Your task to perform on an android device: add a label to a message in the gmail app Image 0: 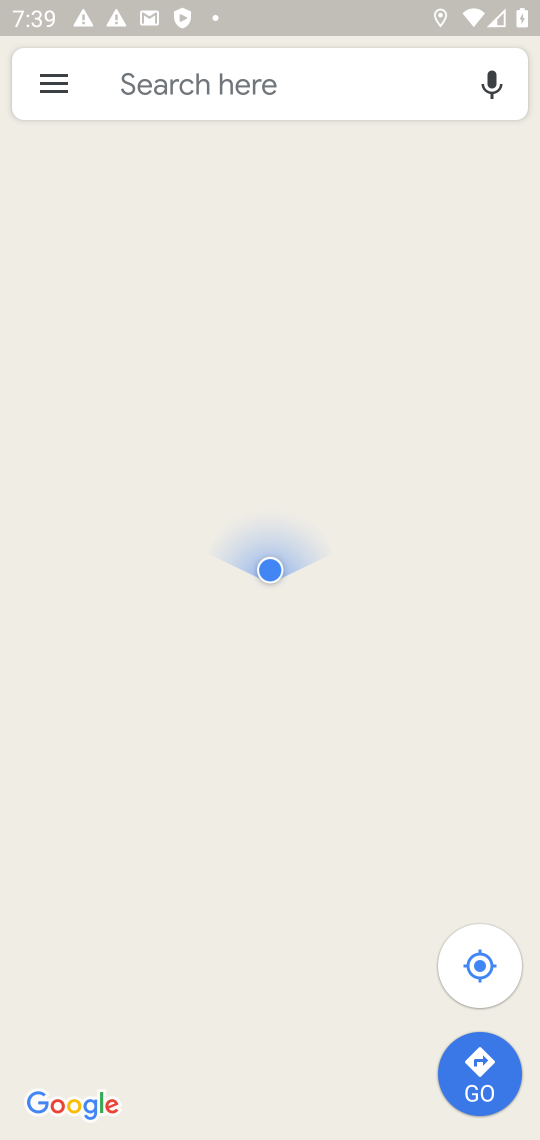
Step 0: press home button
Your task to perform on an android device: add a label to a message in the gmail app Image 1: 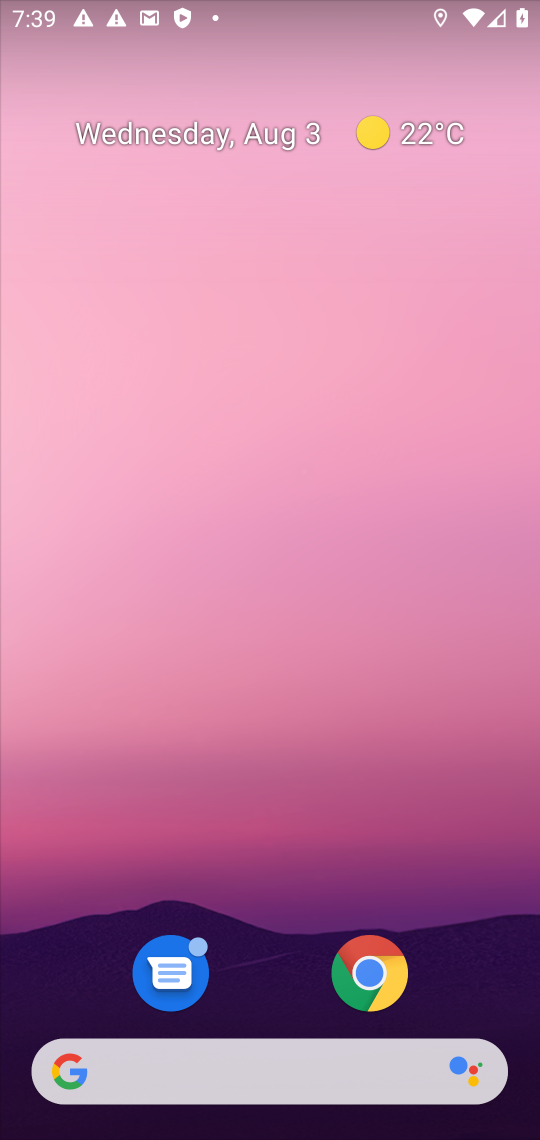
Step 1: drag from (270, 981) to (396, 127)
Your task to perform on an android device: add a label to a message in the gmail app Image 2: 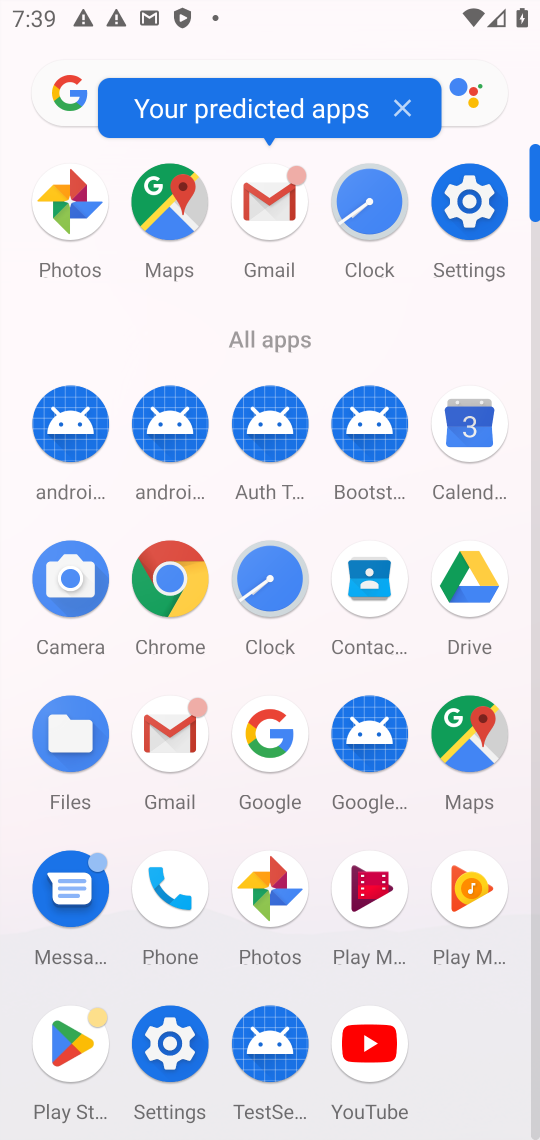
Step 2: click (264, 194)
Your task to perform on an android device: add a label to a message in the gmail app Image 3: 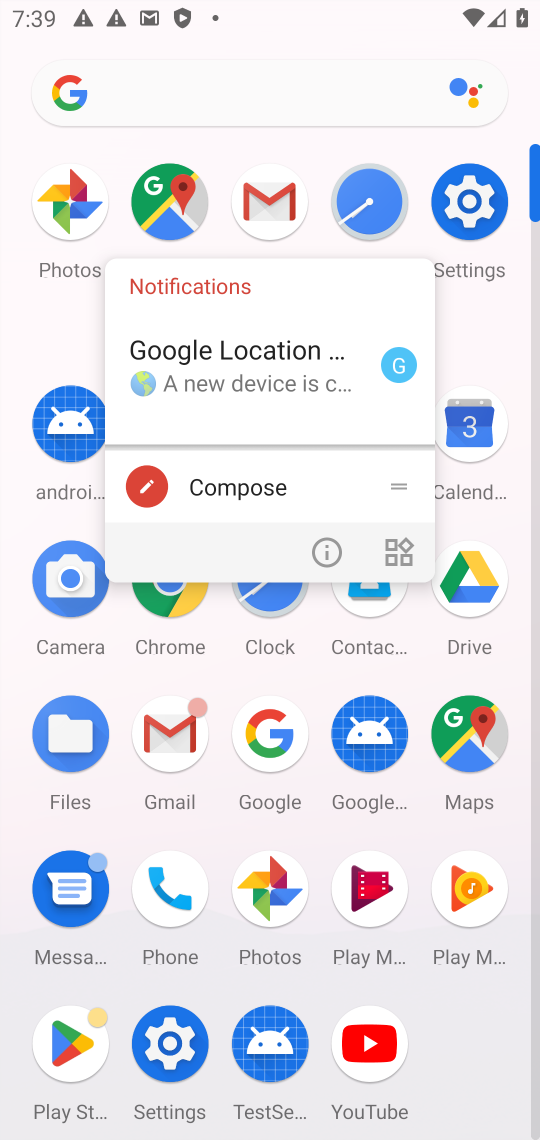
Step 3: click (274, 192)
Your task to perform on an android device: add a label to a message in the gmail app Image 4: 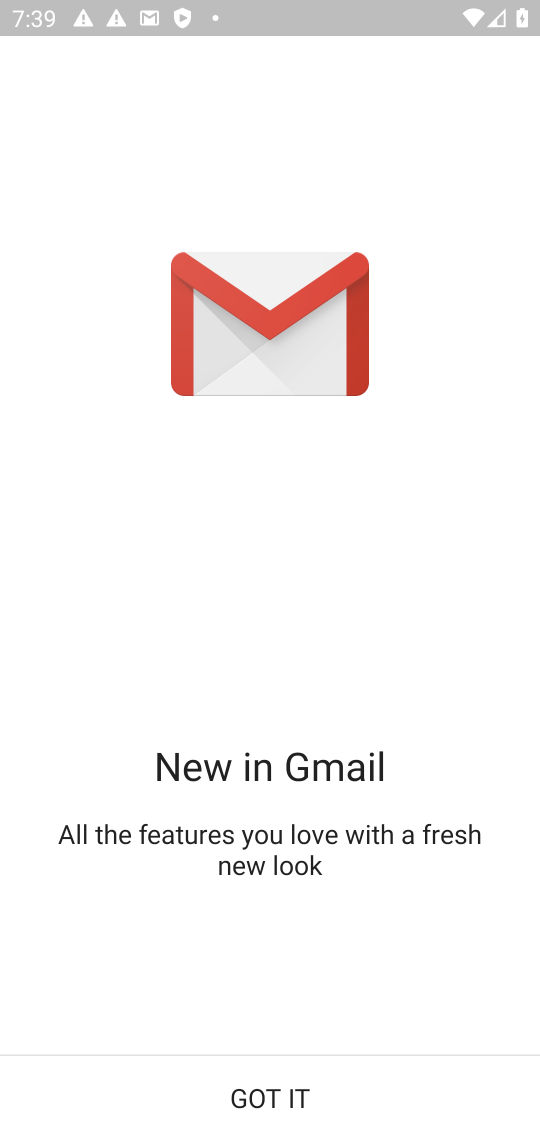
Step 4: click (274, 1104)
Your task to perform on an android device: add a label to a message in the gmail app Image 5: 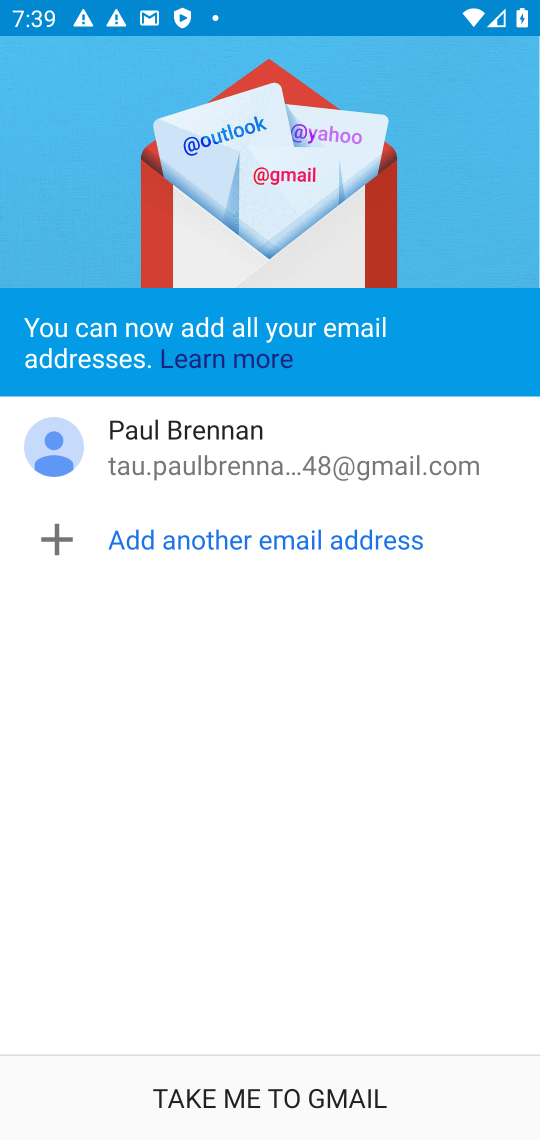
Step 5: click (270, 1099)
Your task to perform on an android device: add a label to a message in the gmail app Image 6: 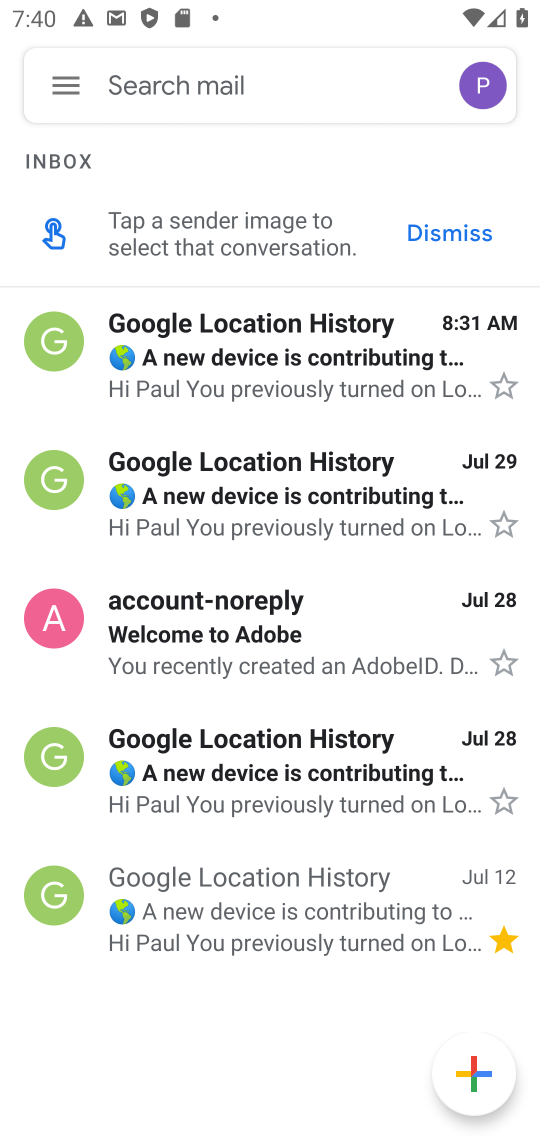
Step 6: click (57, 330)
Your task to perform on an android device: add a label to a message in the gmail app Image 7: 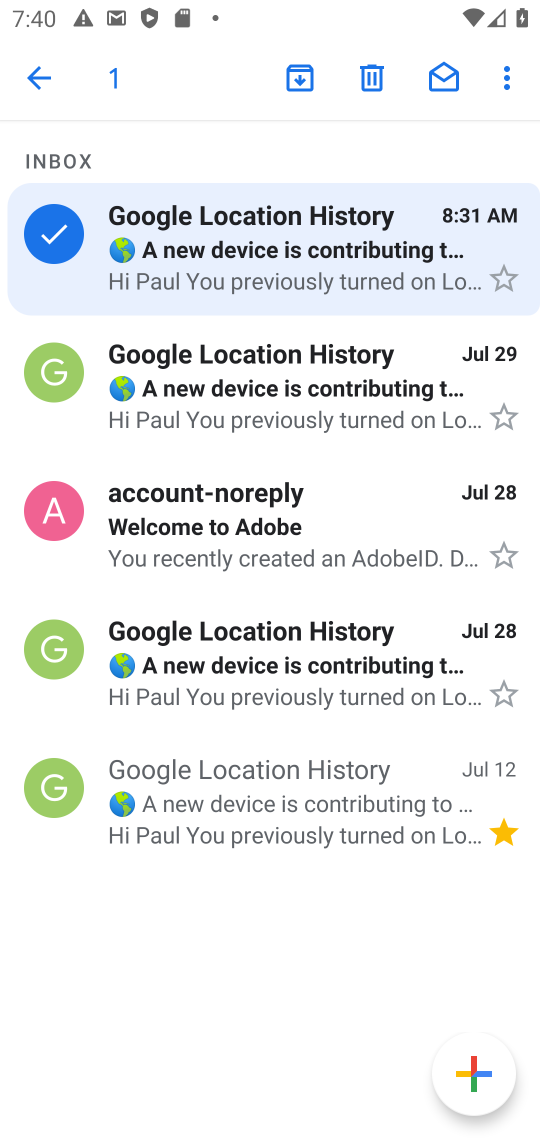
Step 7: click (502, 82)
Your task to perform on an android device: add a label to a message in the gmail app Image 8: 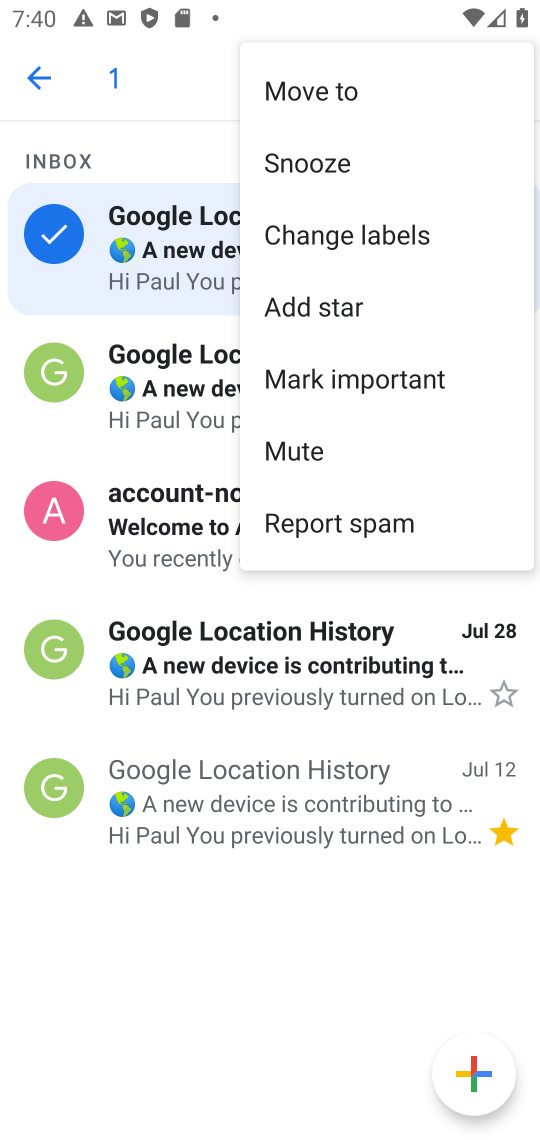
Step 8: click (386, 225)
Your task to perform on an android device: add a label to a message in the gmail app Image 9: 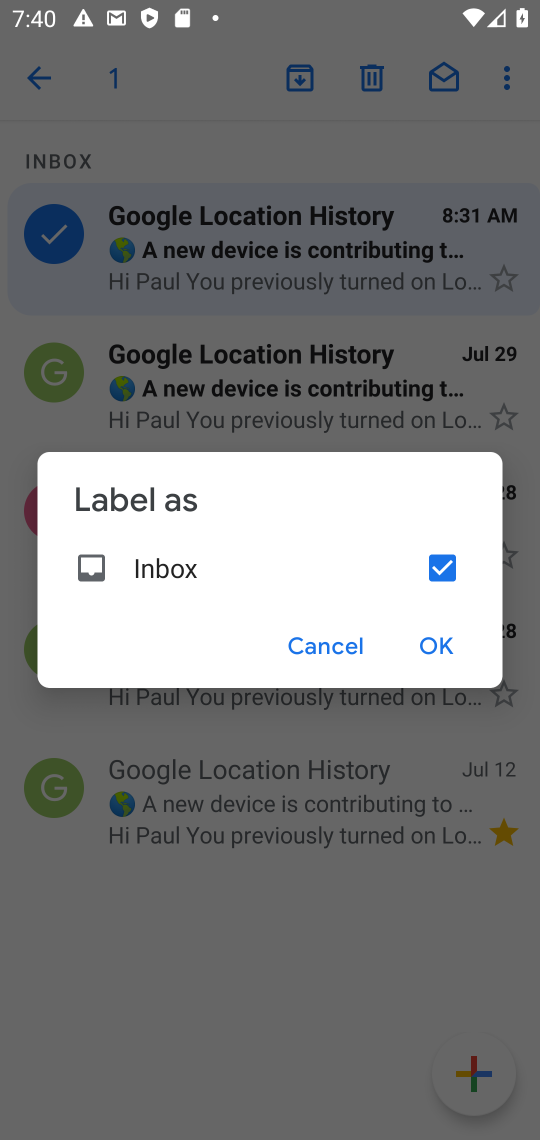
Step 9: click (436, 559)
Your task to perform on an android device: add a label to a message in the gmail app Image 10: 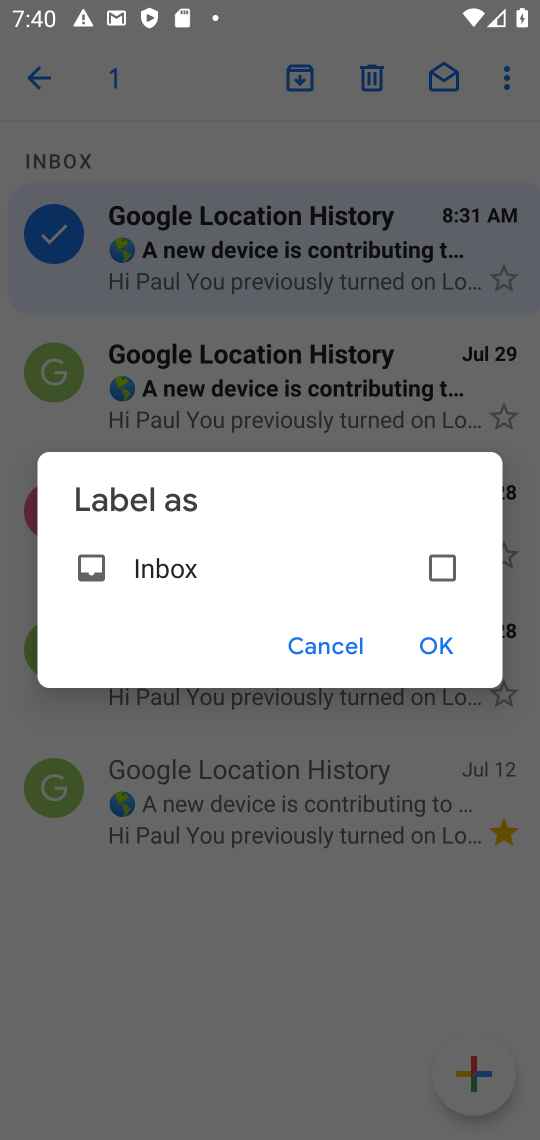
Step 10: click (438, 643)
Your task to perform on an android device: add a label to a message in the gmail app Image 11: 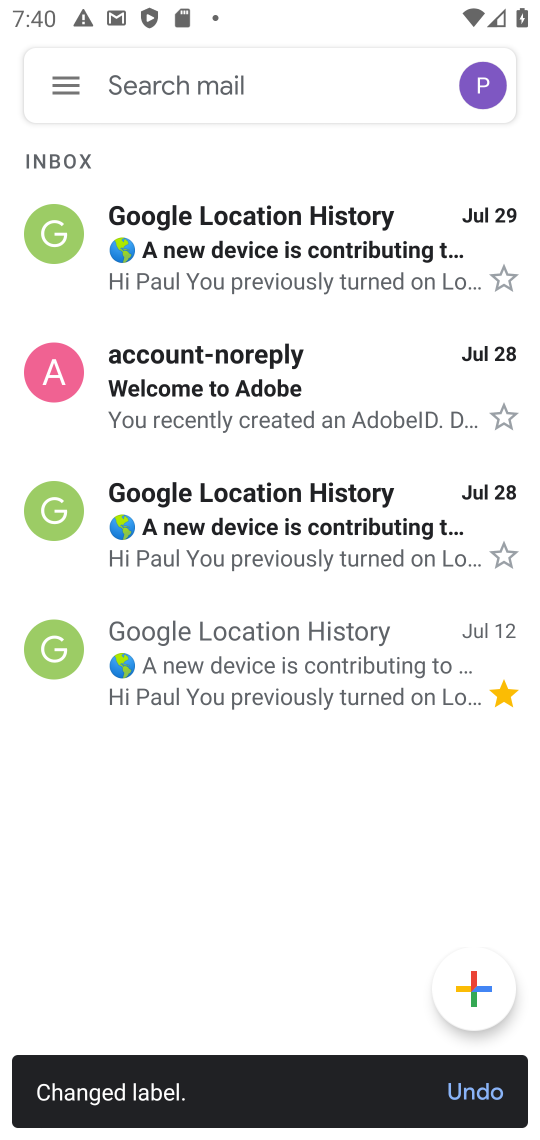
Step 11: task complete